Your task to perform on an android device: Open internet settings Image 0: 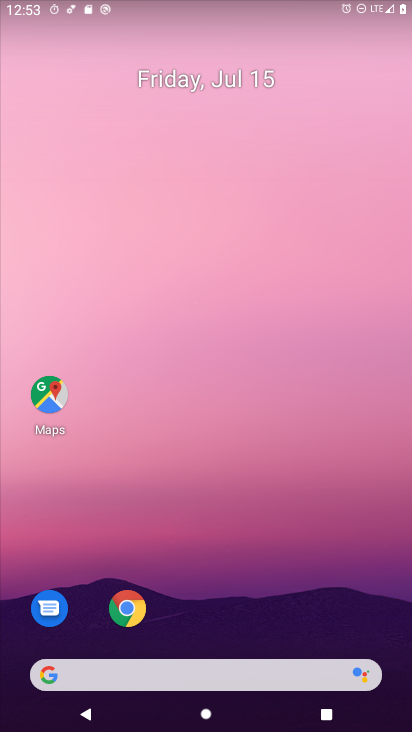
Step 0: drag from (217, 656) to (174, 106)
Your task to perform on an android device: Open internet settings Image 1: 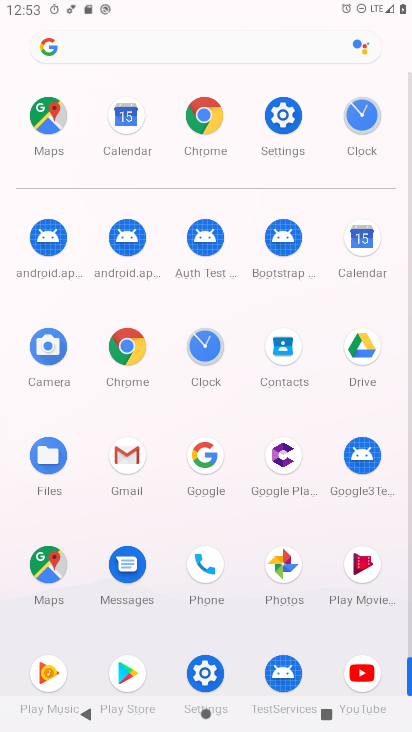
Step 1: click (288, 107)
Your task to perform on an android device: Open internet settings Image 2: 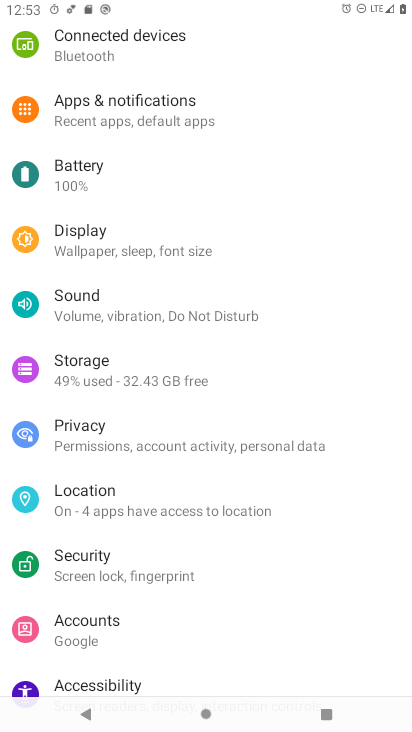
Step 2: drag from (221, 121) to (213, 590)
Your task to perform on an android device: Open internet settings Image 3: 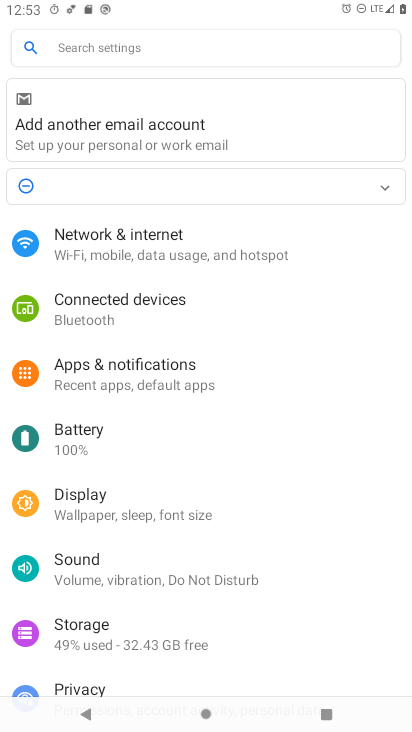
Step 3: click (172, 235)
Your task to perform on an android device: Open internet settings Image 4: 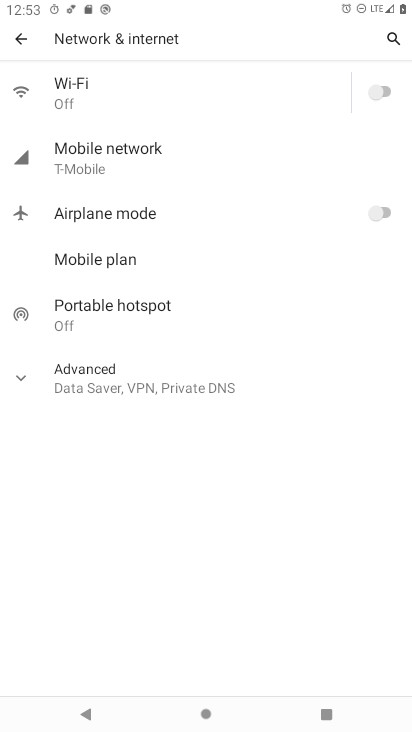
Step 4: click (114, 163)
Your task to perform on an android device: Open internet settings Image 5: 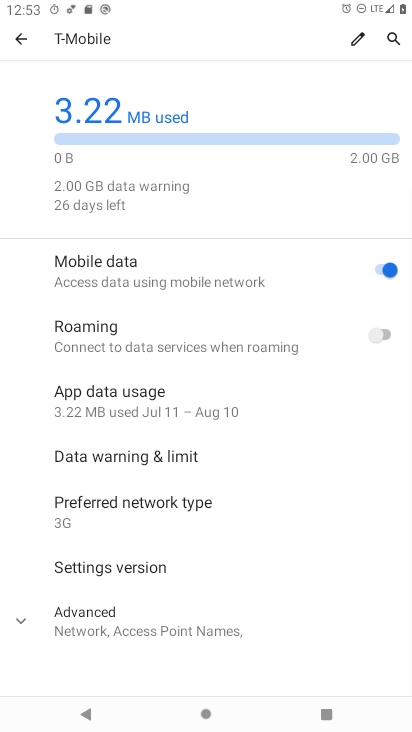
Step 5: task complete